Your task to perform on an android device: Open Google Chrome and open the bookmarks view Image 0: 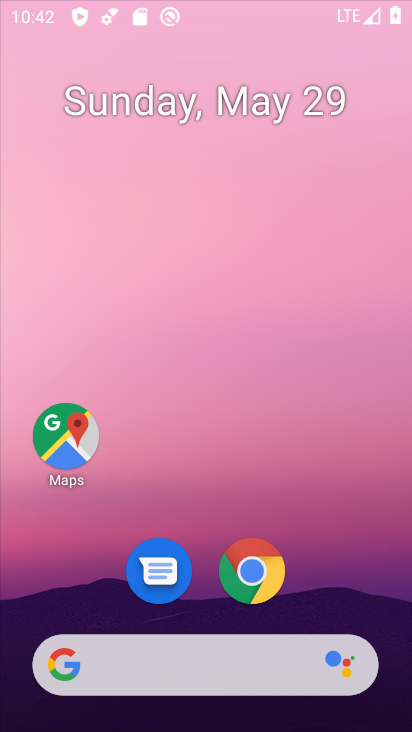
Step 0: drag from (356, 565) to (171, 19)
Your task to perform on an android device: Open Google Chrome and open the bookmarks view Image 1: 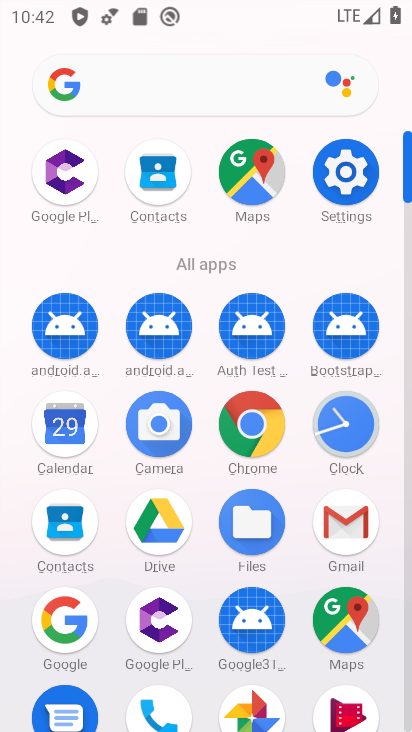
Step 1: click (267, 419)
Your task to perform on an android device: Open Google Chrome and open the bookmarks view Image 2: 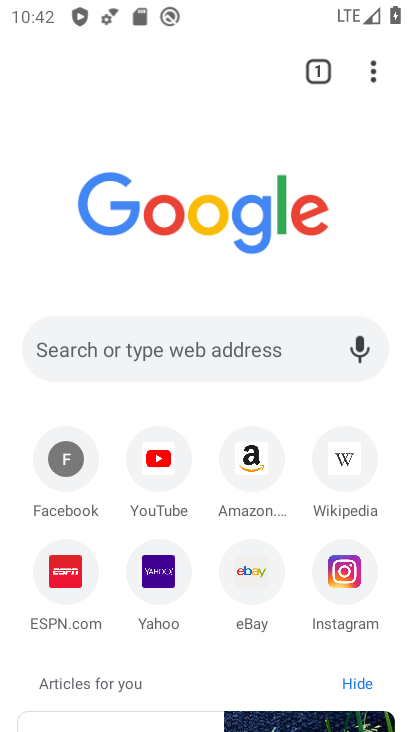
Step 2: click (380, 72)
Your task to perform on an android device: Open Google Chrome and open the bookmarks view Image 3: 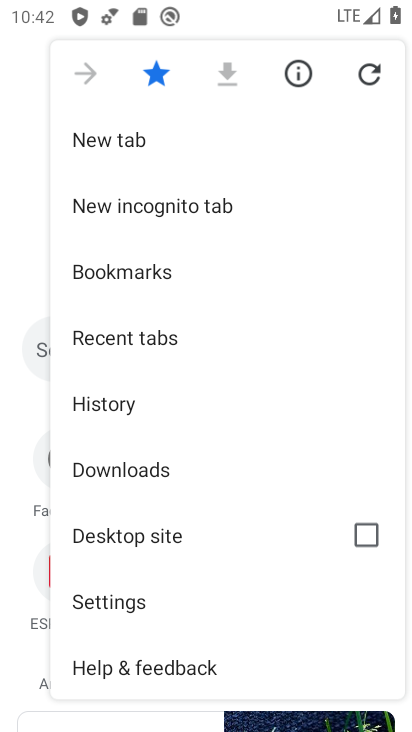
Step 3: click (178, 265)
Your task to perform on an android device: Open Google Chrome and open the bookmarks view Image 4: 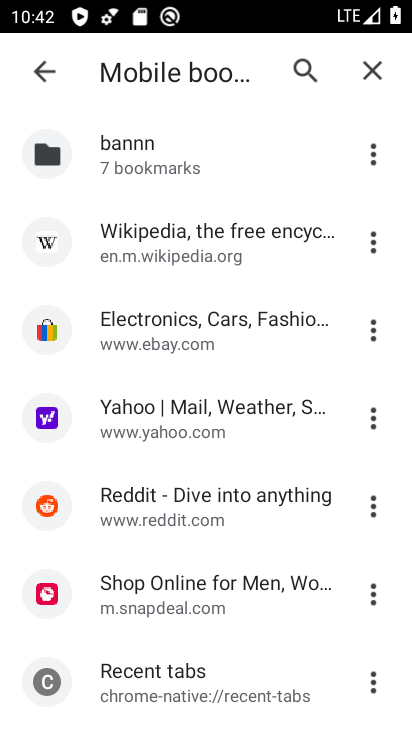
Step 4: click (179, 245)
Your task to perform on an android device: Open Google Chrome and open the bookmarks view Image 5: 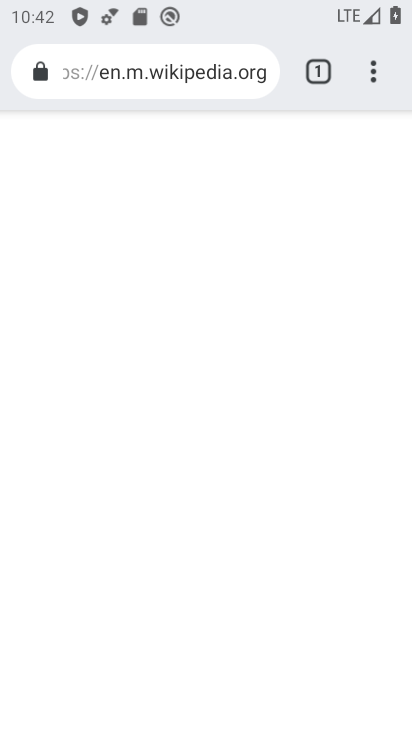
Step 5: task complete